Your task to perform on an android device: toggle pop-ups in chrome Image 0: 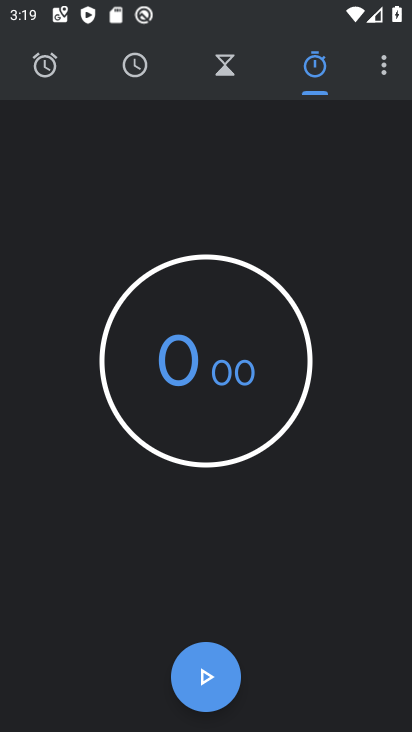
Step 0: press home button
Your task to perform on an android device: toggle pop-ups in chrome Image 1: 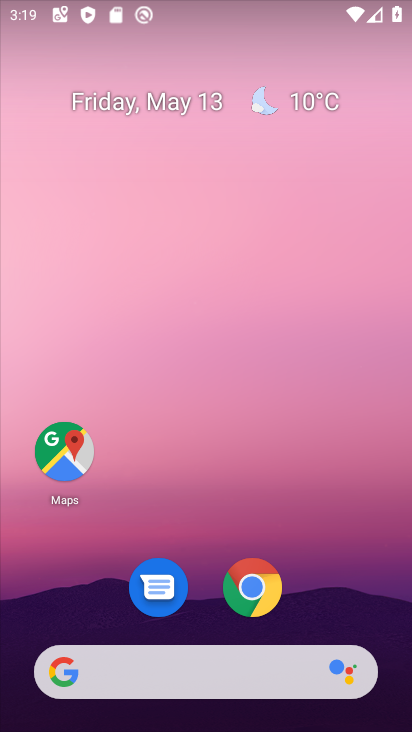
Step 1: click (256, 584)
Your task to perform on an android device: toggle pop-ups in chrome Image 2: 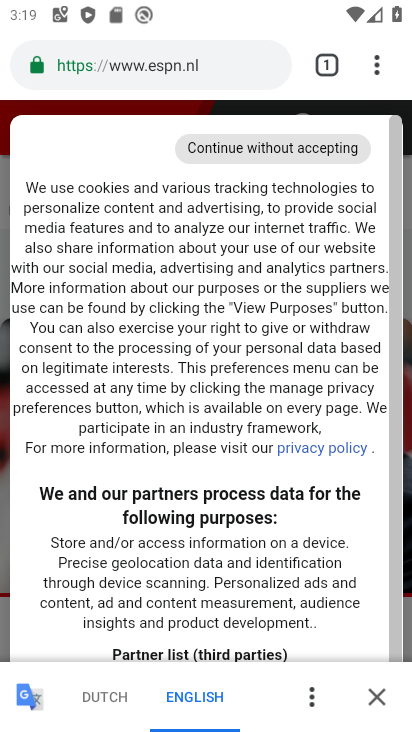
Step 2: click (369, 77)
Your task to perform on an android device: toggle pop-ups in chrome Image 3: 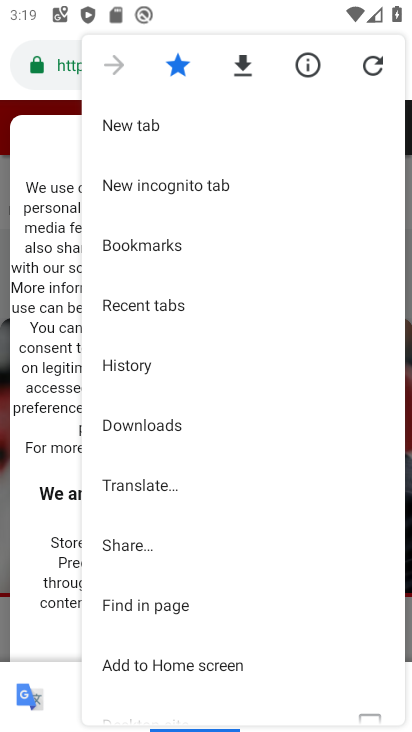
Step 3: drag from (184, 653) to (207, 241)
Your task to perform on an android device: toggle pop-ups in chrome Image 4: 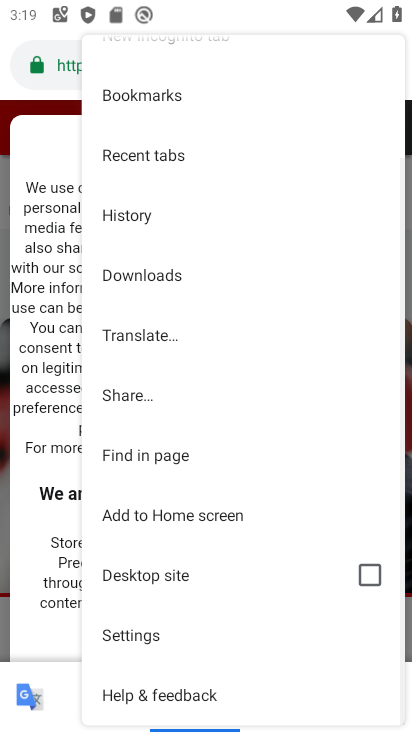
Step 4: click (194, 631)
Your task to perform on an android device: toggle pop-ups in chrome Image 5: 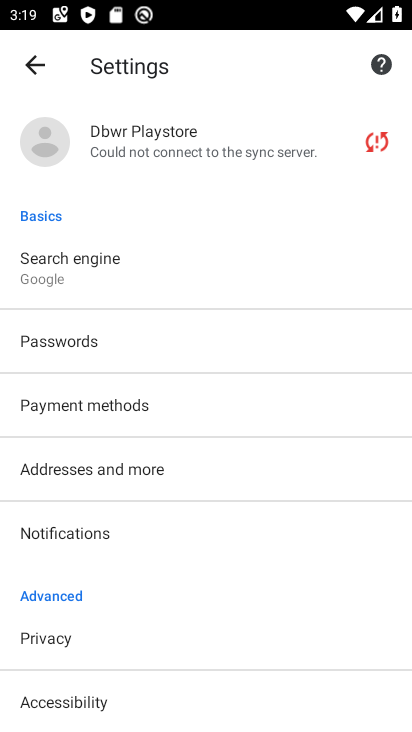
Step 5: drag from (170, 646) to (226, 319)
Your task to perform on an android device: toggle pop-ups in chrome Image 6: 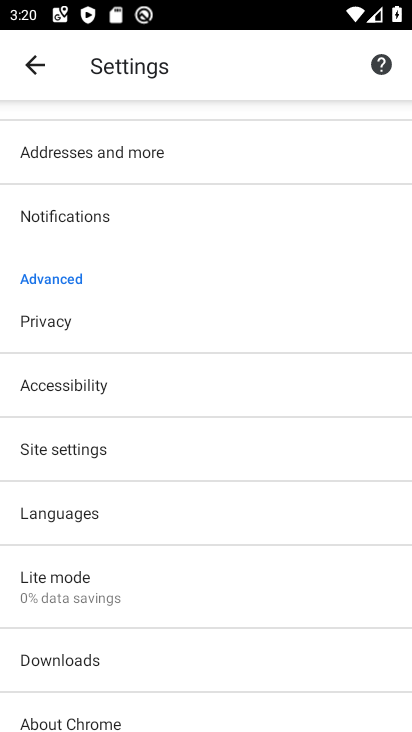
Step 6: drag from (137, 673) to (193, 421)
Your task to perform on an android device: toggle pop-ups in chrome Image 7: 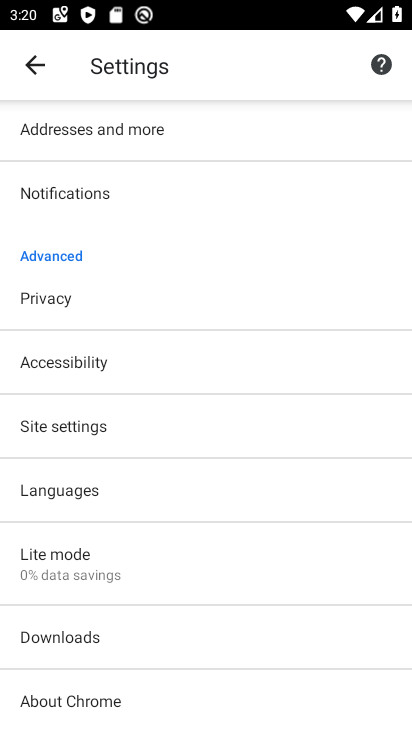
Step 7: click (142, 411)
Your task to perform on an android device: toggle pop-ups in chrome Image 8: 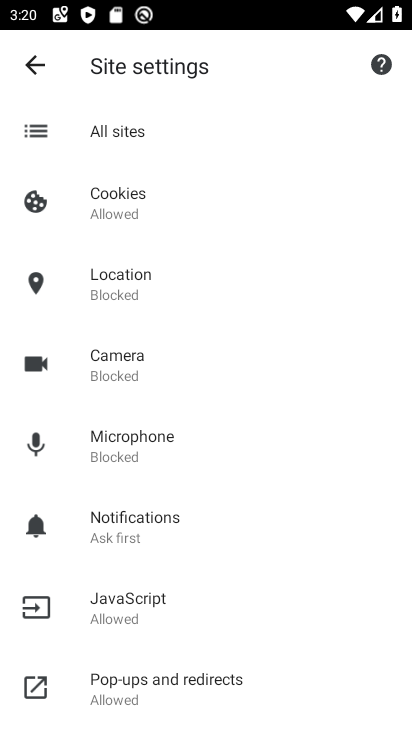
Step 8: click (220, 688)
Your task to perform on an android device: toggle pop-ups in chrome Image 9: 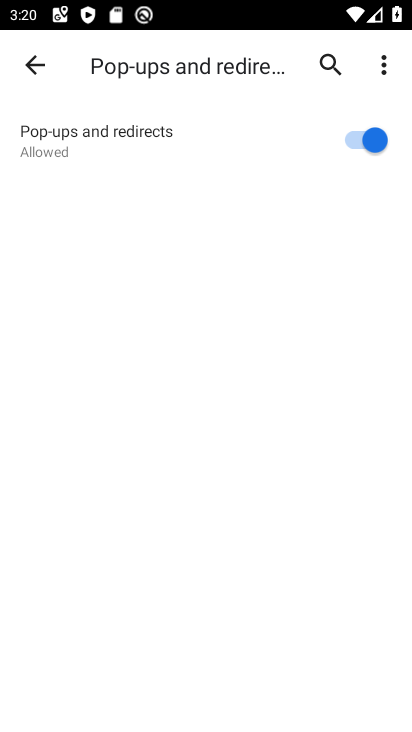
Step 9: click (364, 147)
Your task to perform on an android device: toggle pop-ups in chrome Image 10: 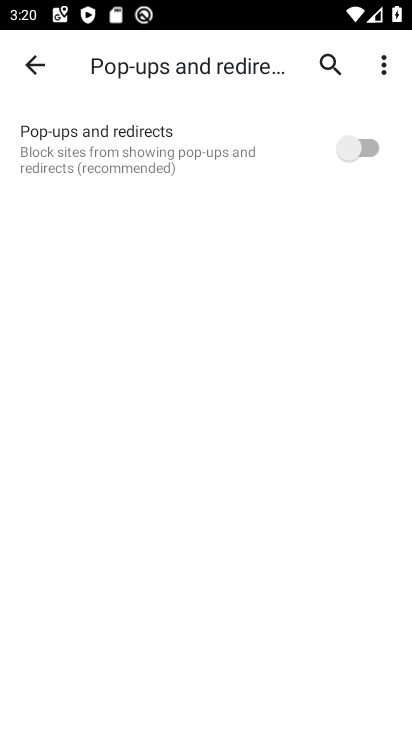
Step 10: task complete